Your task to perform on an android device: Go to battery settings Image 0: 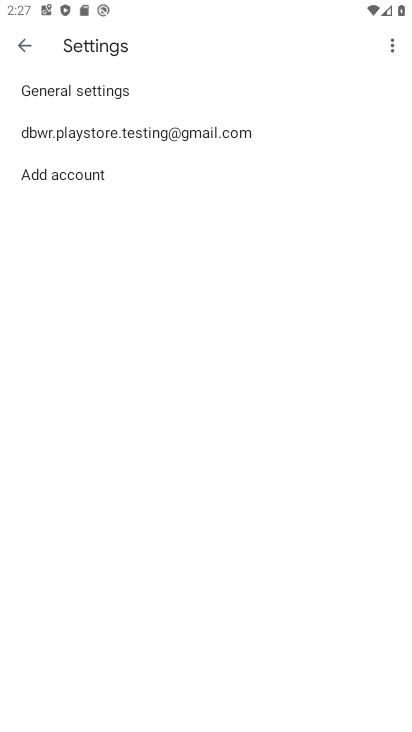
Step 0: press home button
Your task to perform on an android device: Go to battery settings Image 1: 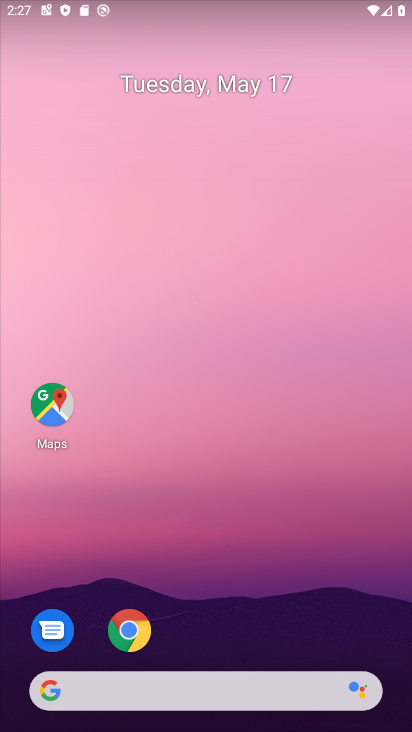
Step 1: drag from (170, 646) to (212, 324)
Your task to perform on an android device: Go to battery settings Image 2: 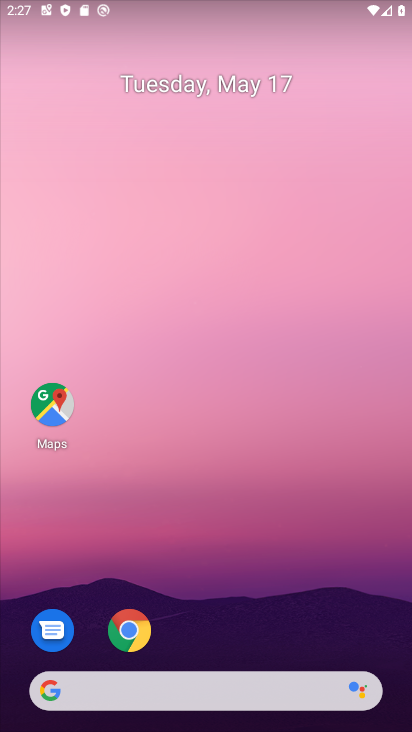
Step 2: drag from (230, 450) to (230, 221)
Your task to perform on an android device: Go to battery settings Image 3: 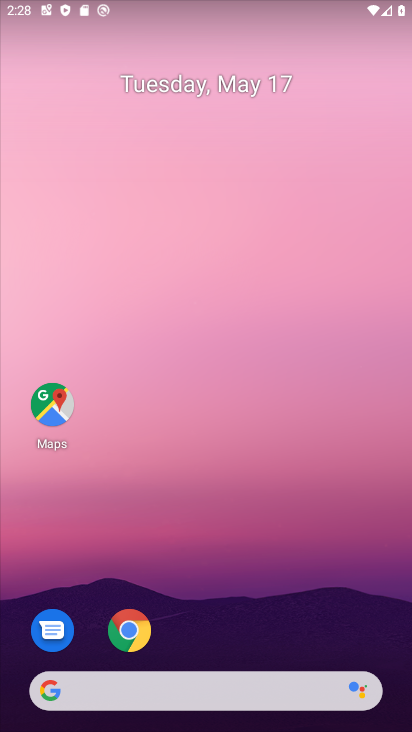
Step 3: drag from (212, 674) to (249, 132)
Your task to perform on an android device: Go to battery settings Image 4: 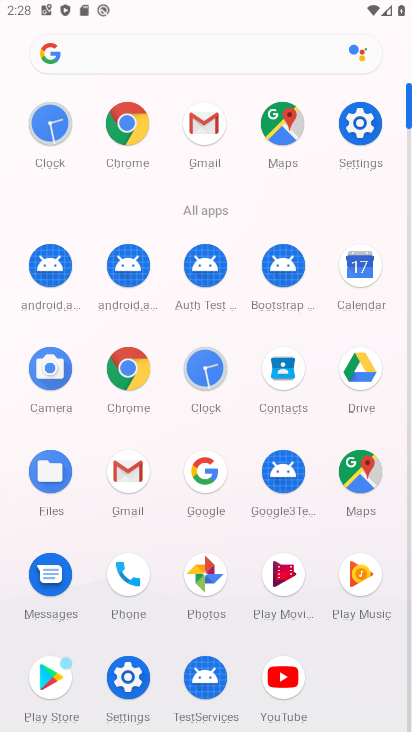
Step 4: click (363, 119)
Your task to perform on an android device: Go to battery settings Image 5: 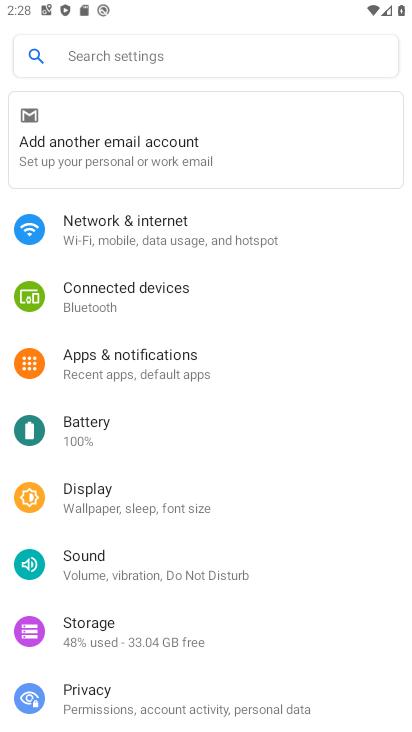
Step 5: click (112, 433)
Your task to perform on an android device: Go to battery settings Image 6: 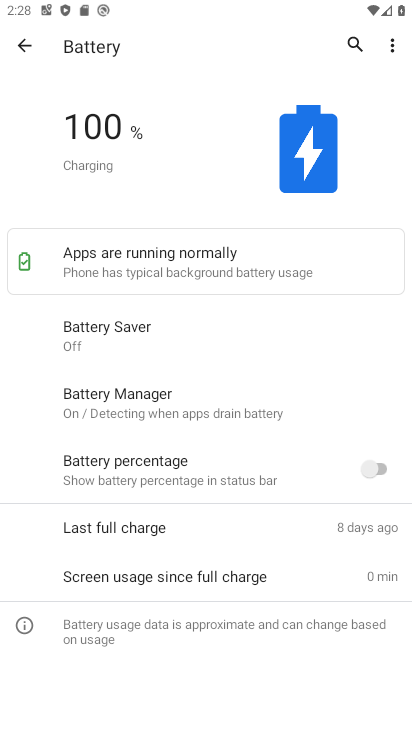
Step 6: task complete